Your task to perform on an android device: What is the news today? Image 0: 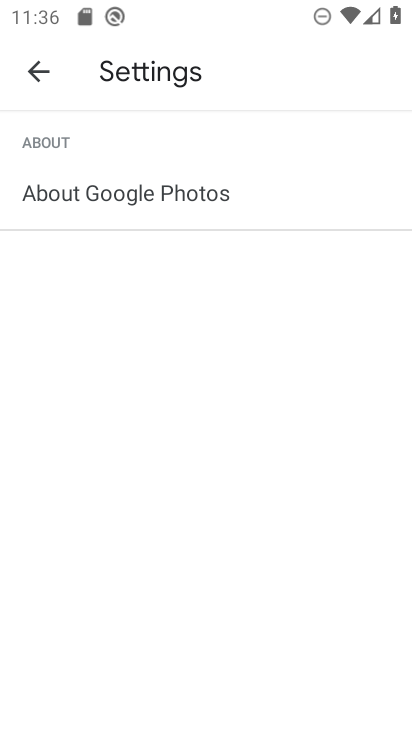
Step 0: drag from (258, 593) to (335, 342)
Your task to perform on an android device: What is the news today? Image 1: 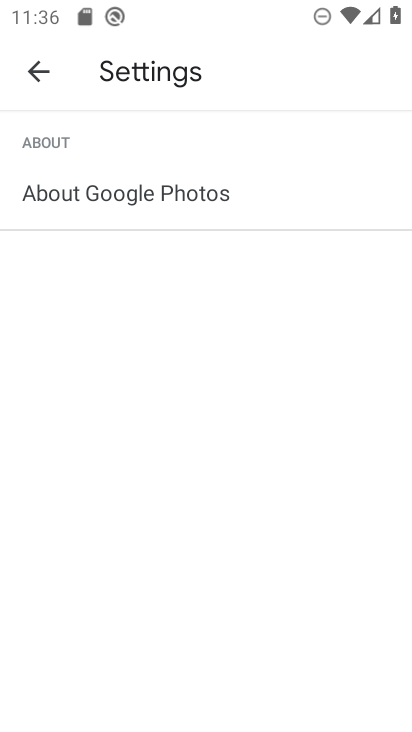
Step 1: press home button
Your task to perform on an android device: What is the news today? Image 2: 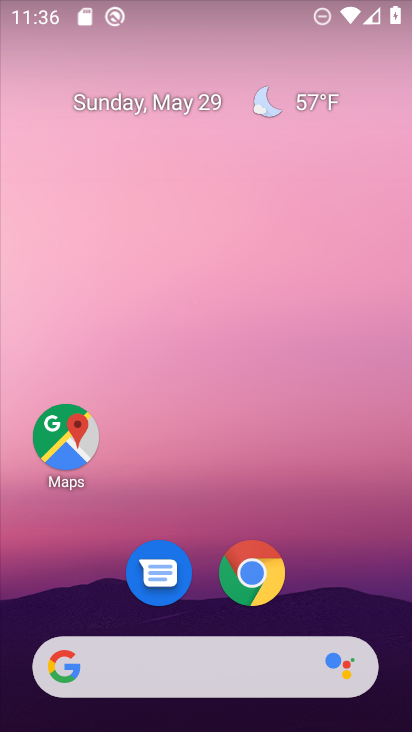
Step 2: drag from (296, 672) to (349, 138)
Your task to perform on an android device: What is the news today? Image 3: 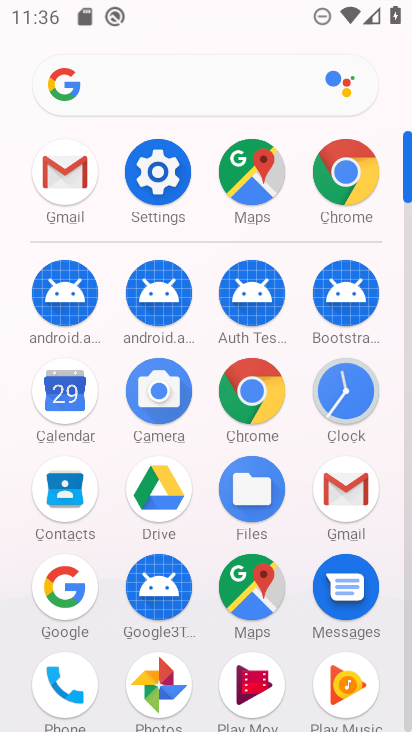
Step 3: click (255, 400)
Your task to perform on an android device: What is the news today? Image 4: 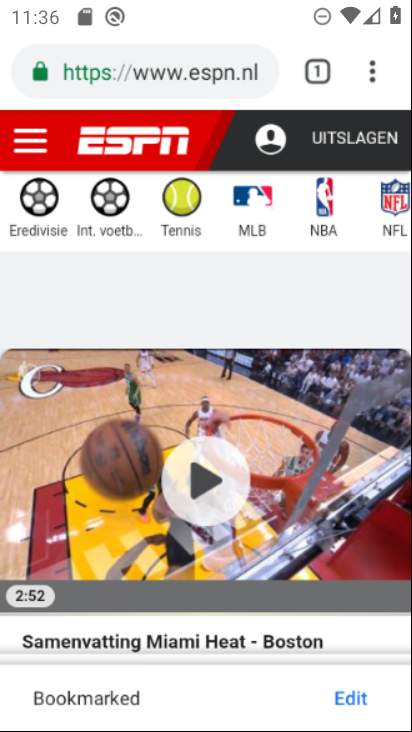
Step 4: click (201, 66)
Your task to perform on an android device: What is the news today? Image 5: 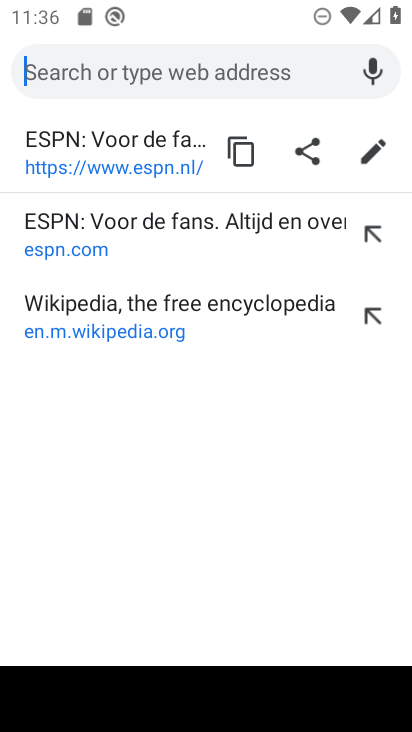
Step 5: type "news today"
Your task to perform on an android device: What is the news today? Image 6: 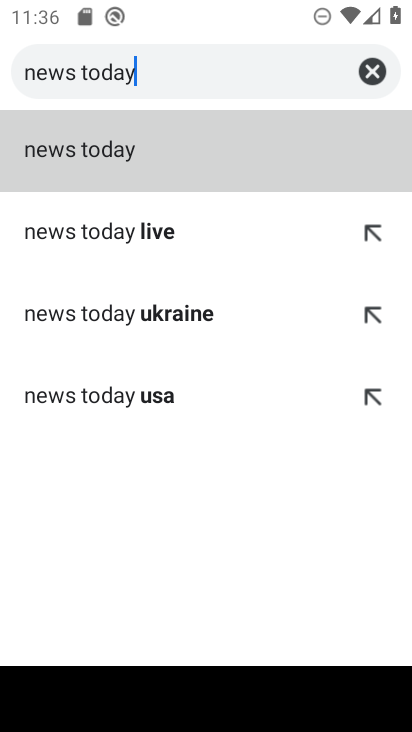
Step 6: click (151, 135)
Your task to perform on an android device: What is the news today? Image 7: 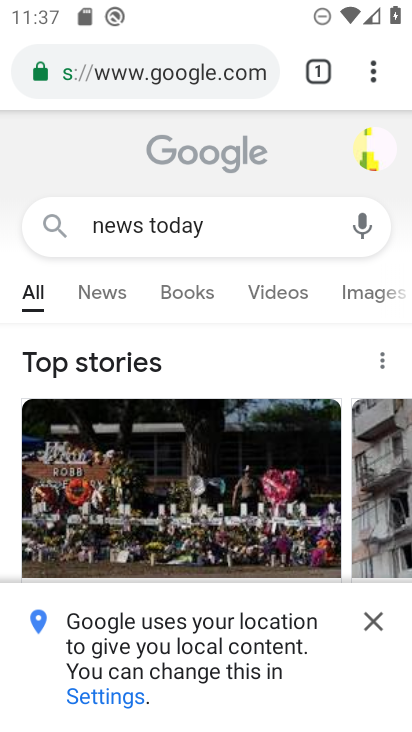
Step 7: task complete